Your task to perform on an android device: open chrome and create a bookmark for the current page Image 0: 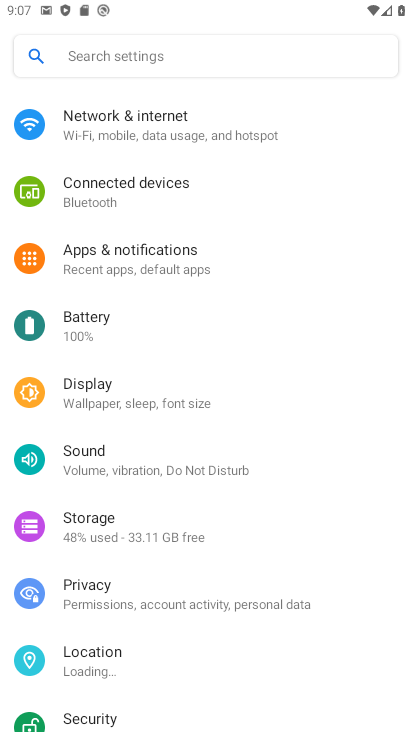
Step 0: press home button
Your task to perform on an android device: open chrome and create a bookmark for the current page Image 1: 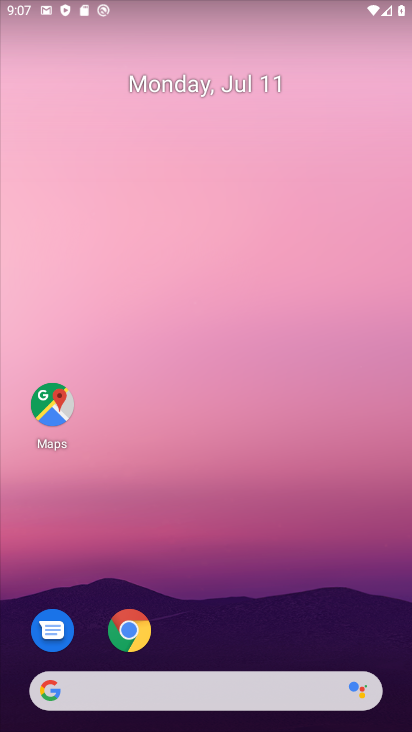
Step 1: drag from (222, 662) to (301, 137)
Your task to perform on an android device: open chrome and create a bookmark for the current page Image 2: 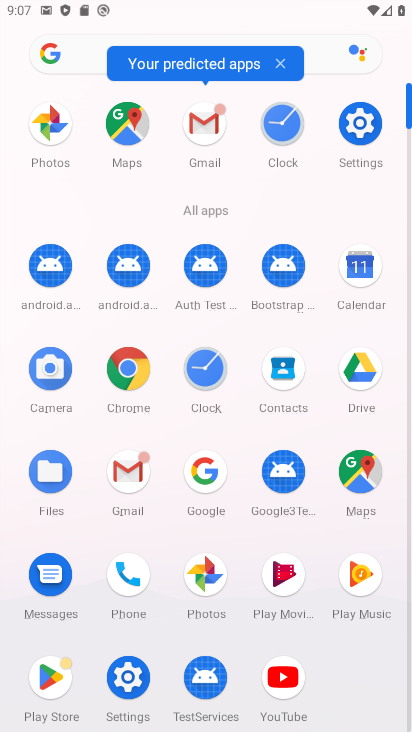
Step 2: click (119, 363)
Your task to perform on an android device: open chrome and create a bookmark for the current page Image 3: 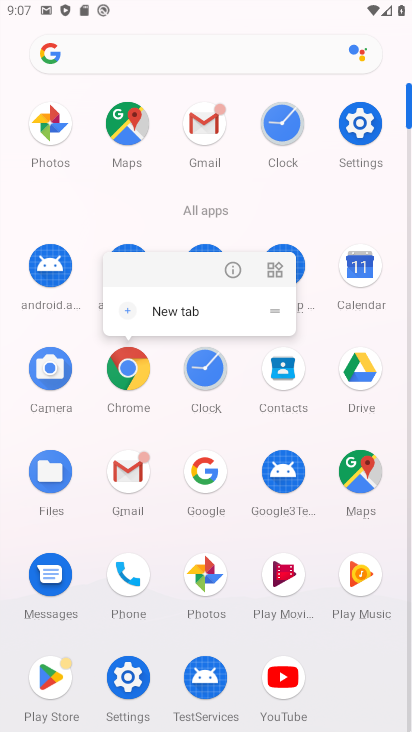
Step 3: click (124, 364)
Your task to perform on an android device: open chrome and create a bookmark for the current page Image 4: 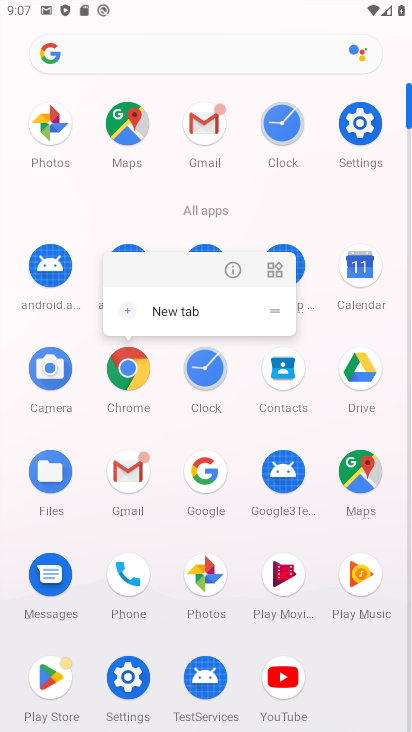
Step 4: click (123, 369)
Your task to perform on an android device: open chrome and create a bookmark for the current page Image 5: 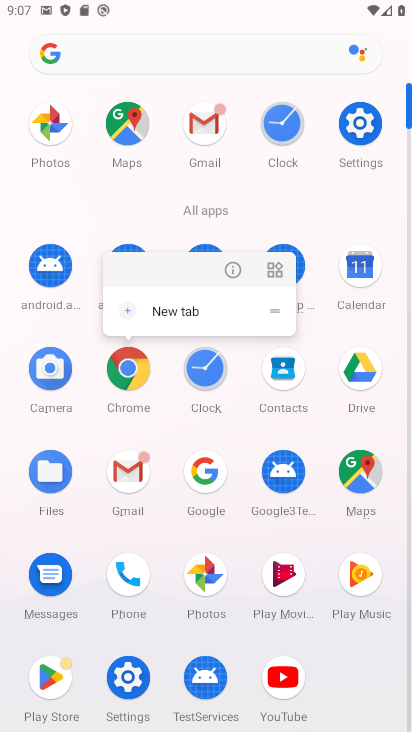
Step 5: click (127, 384)
Your task to perform on an android device: open chrome and create a bookmark for the current page Image 6: 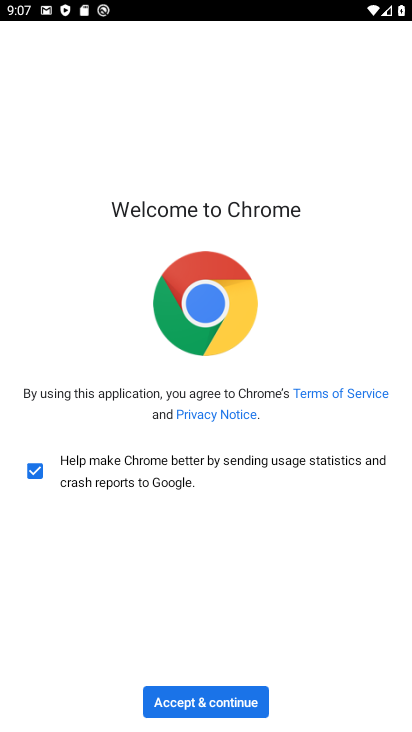
Step 6: click (233, 705)
Your task to perform on an android device: open chrome and create a bookmark for the current page Image 7: 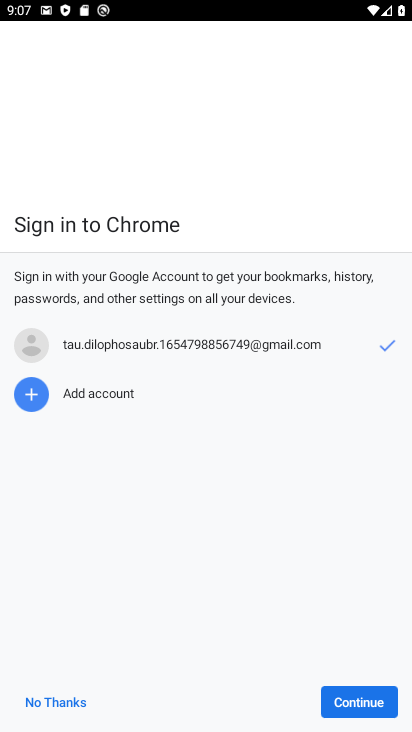
Step 7: click (338, 701)
Your task to perform on an android device: open chrome and create a bookmark for the current page Image 8: 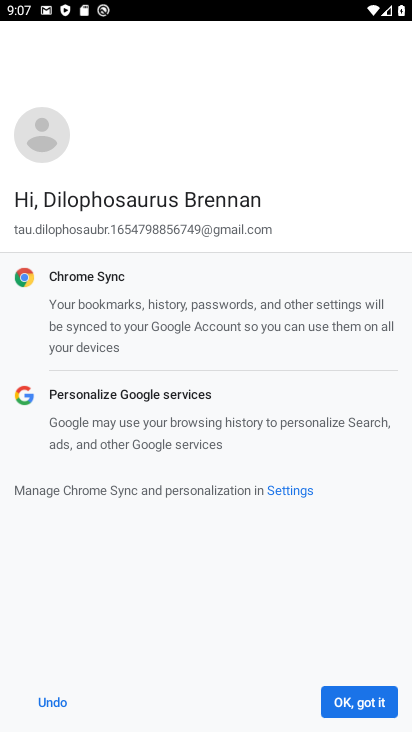
Step 8: click (347, 697)
Your task to perform on an android device: open chrome and create a bookmark for the current page Image 9: 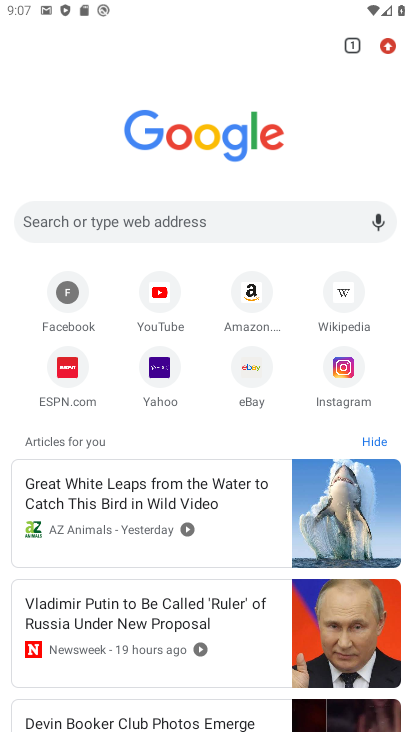
Step 9: task complete